Your task to perform on an android device: Show me recent news Image 0: 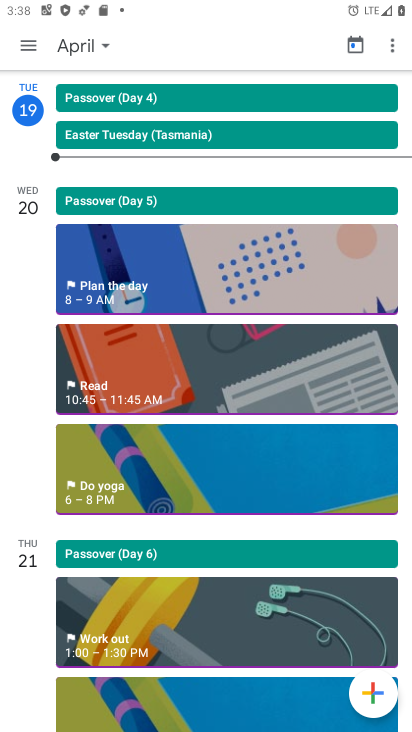
Step 0: press home button
Your task to perform on an android device: Show me recent news Image 1: 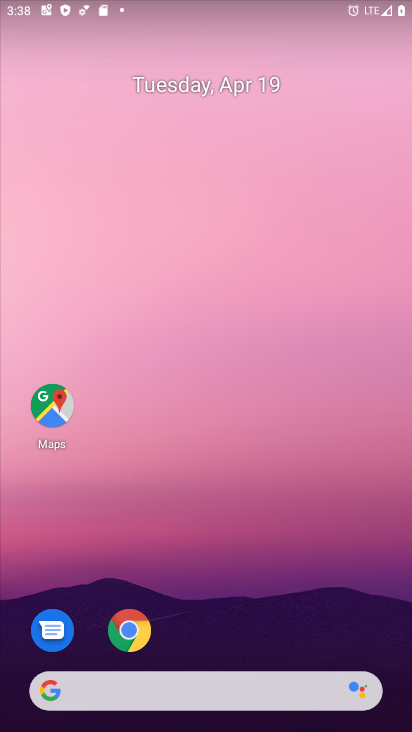
Step 1: task complete